Your task to perform on an android device: set the timer Image 0: 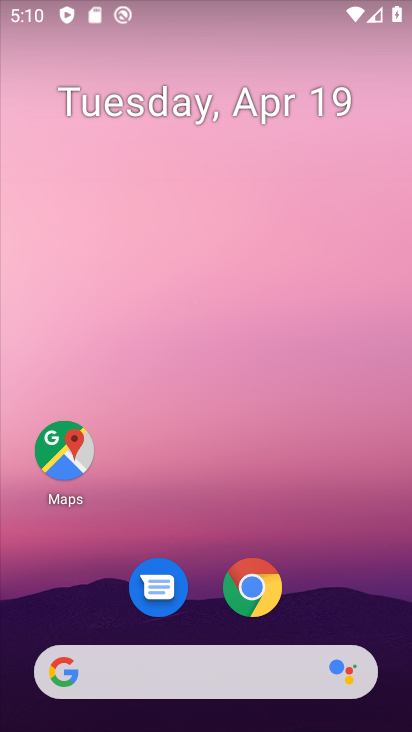
Step 0: drag from (203, 466) to (208, 32)
Your task to perform on an android device: set the timer Image 1: 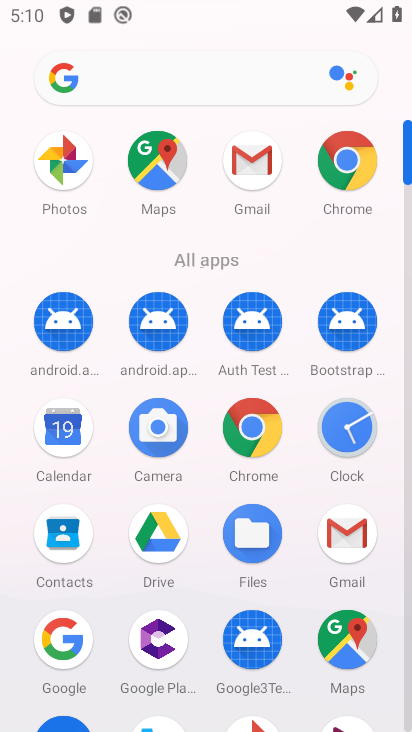
Step 1: click (362, 407)
Your task to perform on an android device: set the timer Image 2: 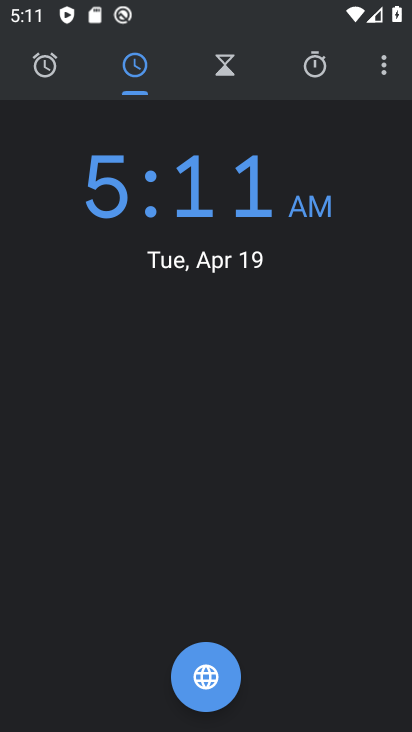
Step 2: click (310, 80)
Your task to perform on an android device: set the timer Image 3: 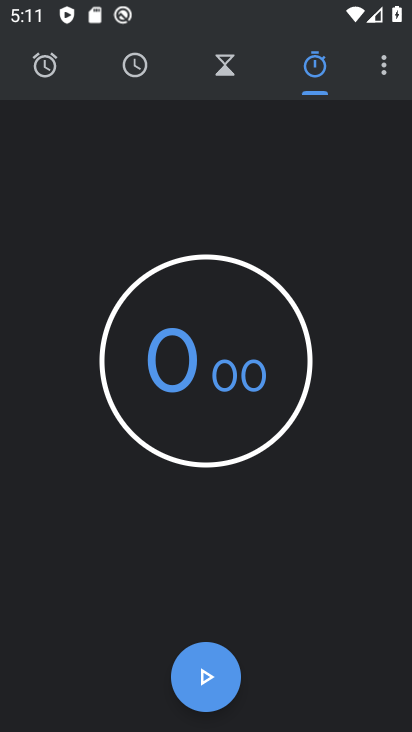
Step 3: click (231, 62)
Your task to perform on an android device: set the timer Image 4: 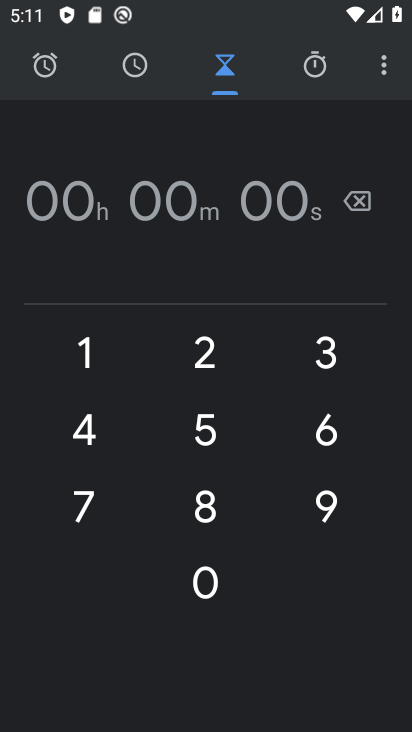
Step 4: click (325, 412)
Your task to perform on an android device: set the timer Image 5: 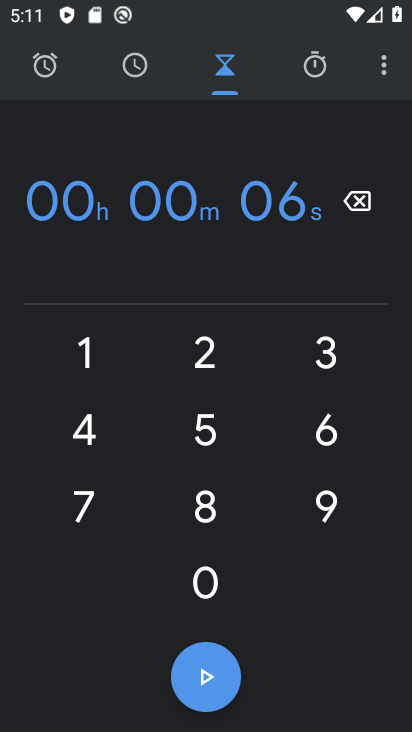
Step 5: click (196, 678)
Your task to perform on an android device: set the timer Image 6: 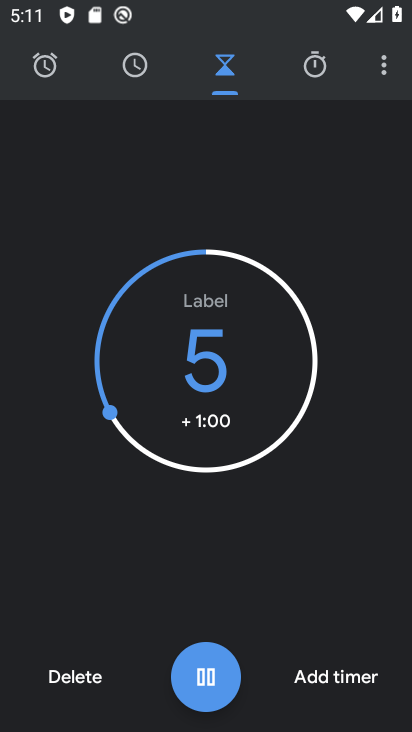
Step 6: task complete